Your task to perform on an android device: Search for bose quietcomfort 35 on walmart, select the first entry, and add it to the cart. Image 0: 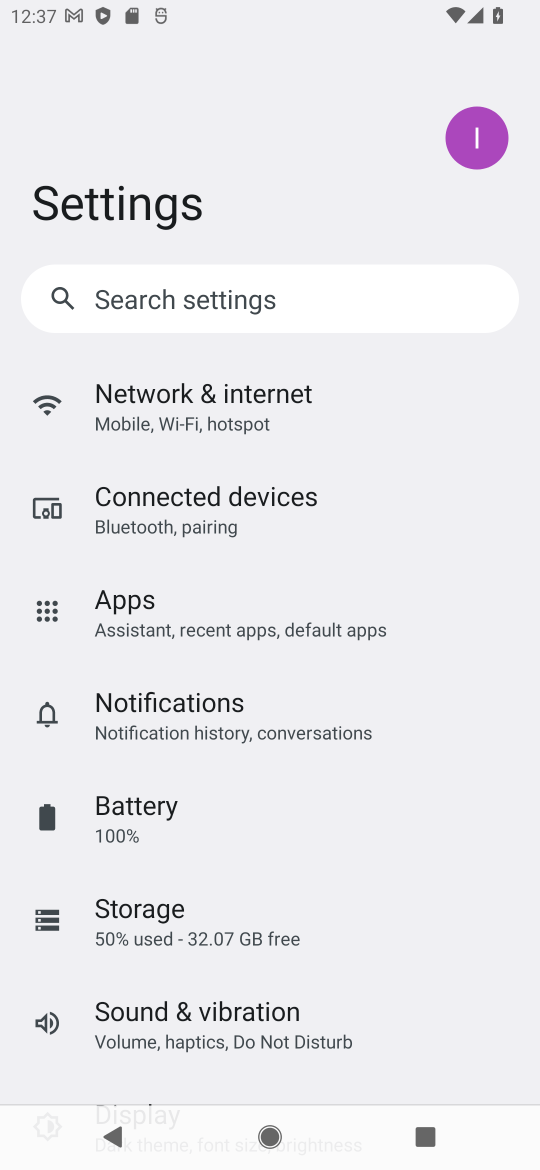
Step 0: press home button
Your task to perform on an android device: Search for bose quietcomfort 35 on walmart, select the first entry, and add it to the cart. Image 1: 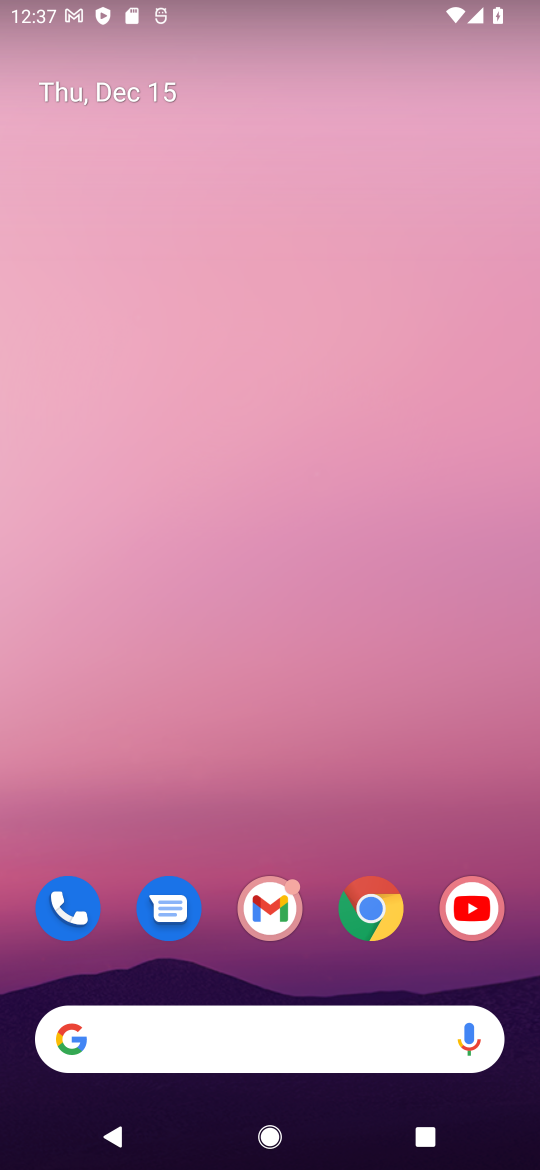
Step 1: click (361, 916)
Your task to perform on an android device: Search for bose quietcomfort 35 on walmart, select the first entry, and add it to the cart. Image 2: 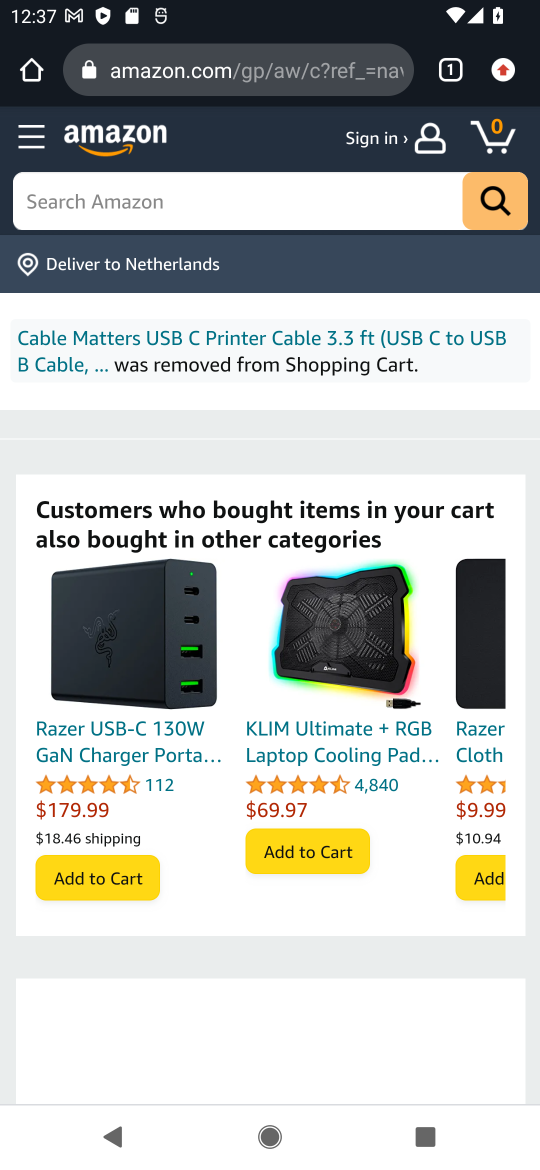
Step 2: click (247, 79)
Your task to perform on an android device: Search for bose quietcomfort 35 on walmart, select the first entry, and add it to the cart. Image 3: 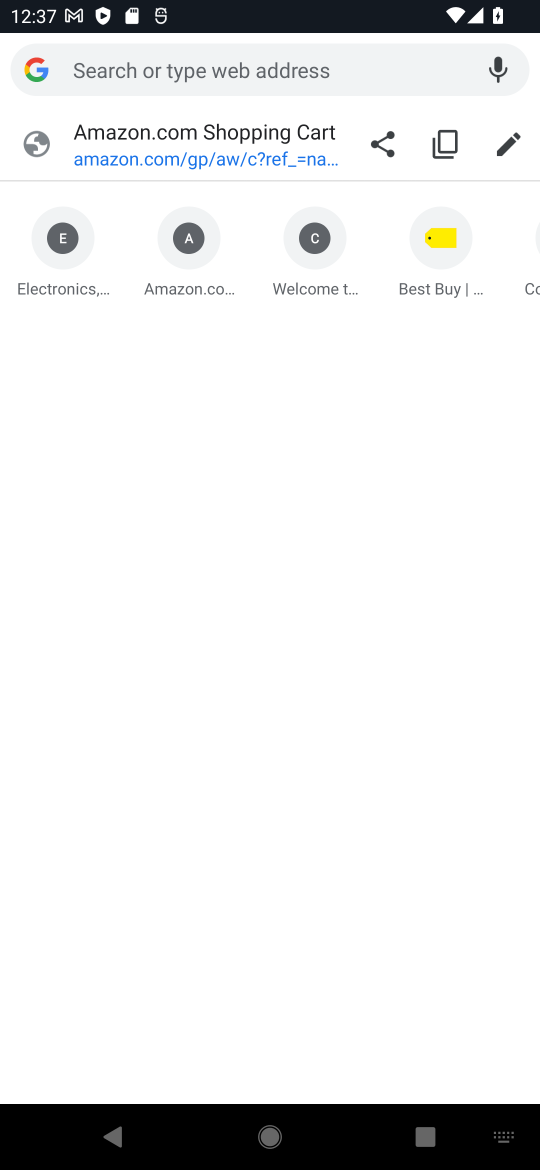
Step 3: type "walmart.com"
Your task to perform on an android device: Search for bose quietcomfort 35 on walmart, select the first entry, and add it to the cart. Image 4: 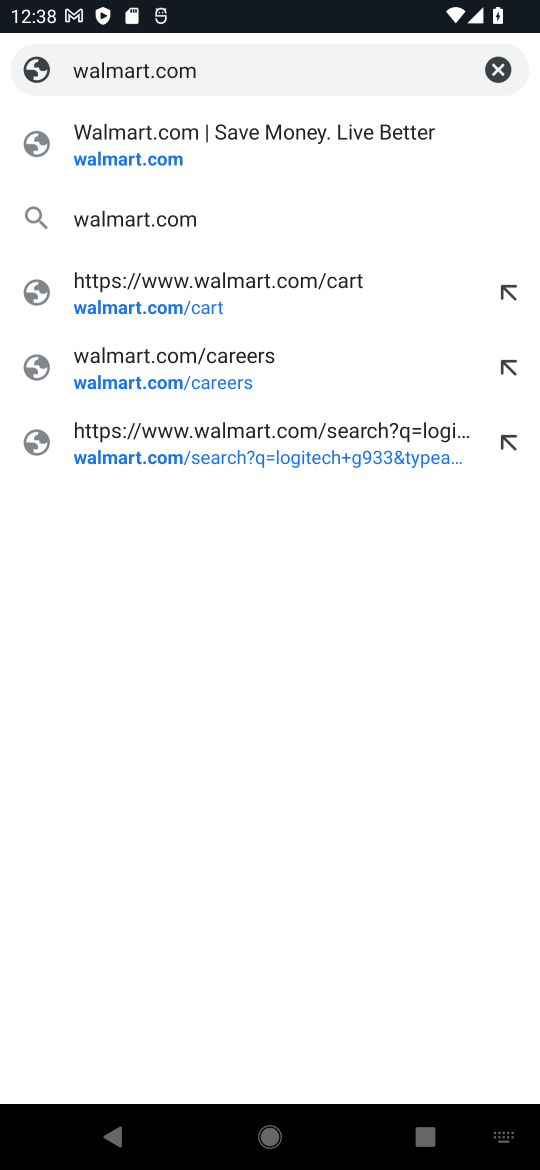
Step 4: click (124, 159)
Your task to perform on an android device: Search for bose quietcomfort 35 on walmart, select the first entry, and add it to the cart. Image 5: 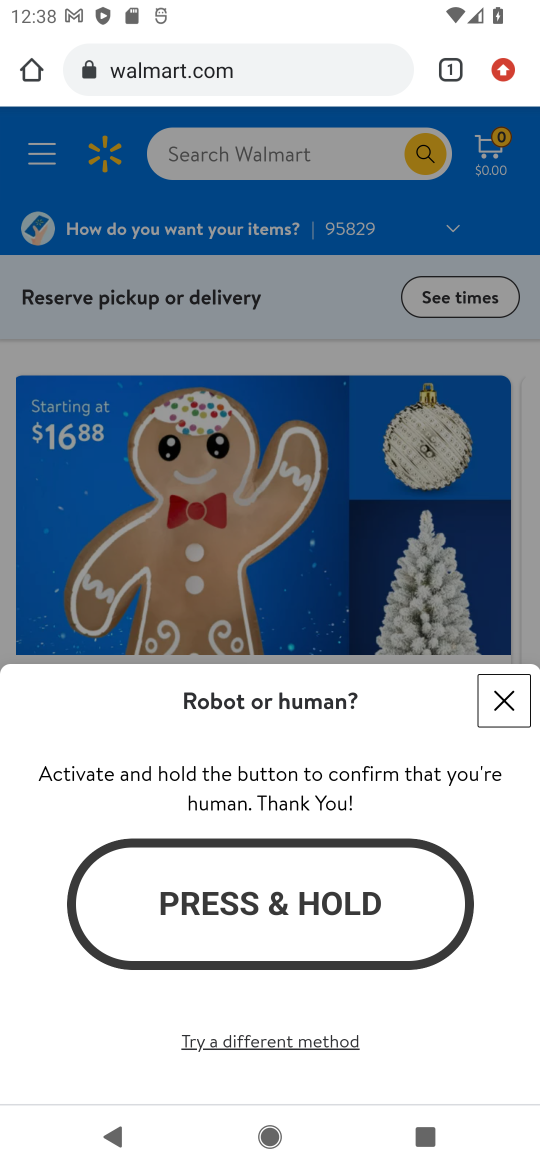
Step 5: click (233, 894)
Your task to perform on an android device: Search for bose quietcomfort 35 on walmart, select the first entry, and add it to the cart. Image 6: 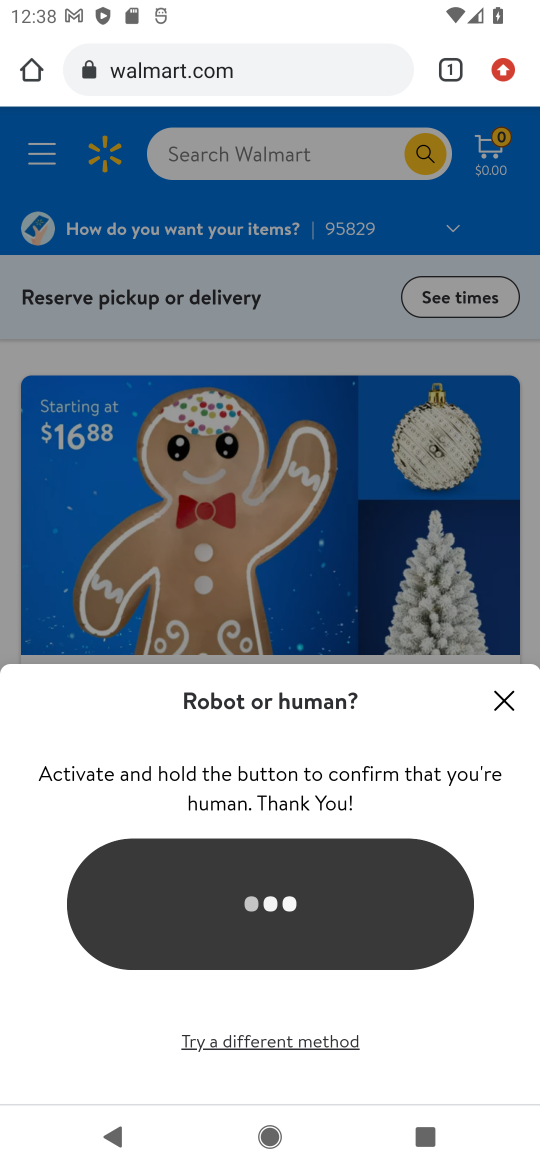
Step 6: click (227, 174)
Your task to perform on an android device: Search for bose quietcomfort 35 on walmart, select the first entry, and add it to the cart. Image 7: 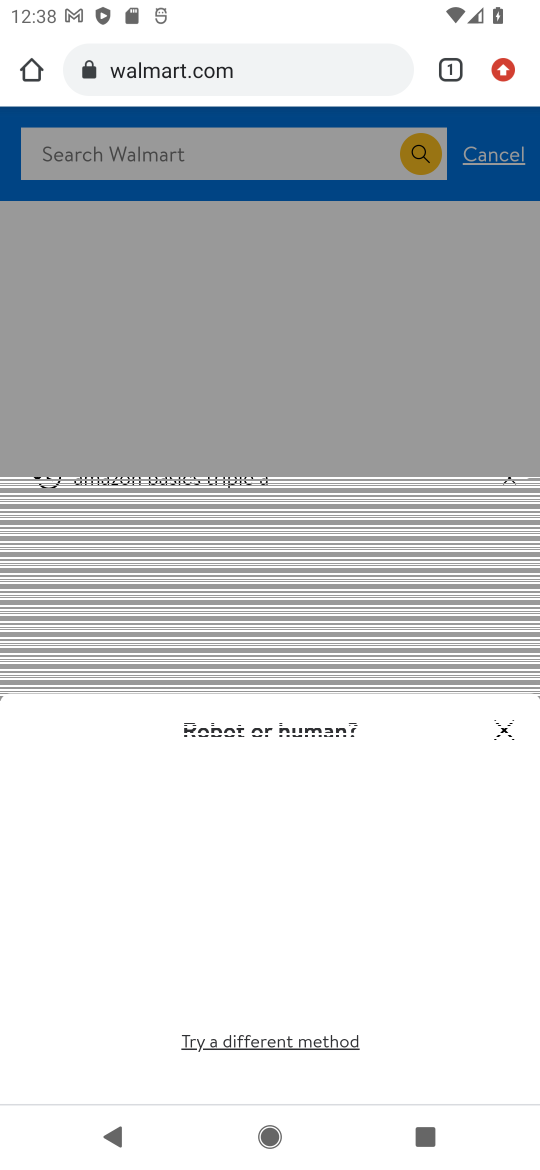
Step 7: click (237, 158)
Your task to perform on an android device: Search for bose quietcomfort 35 on walmart, select the first entry, and add it to the cart. Image 8: 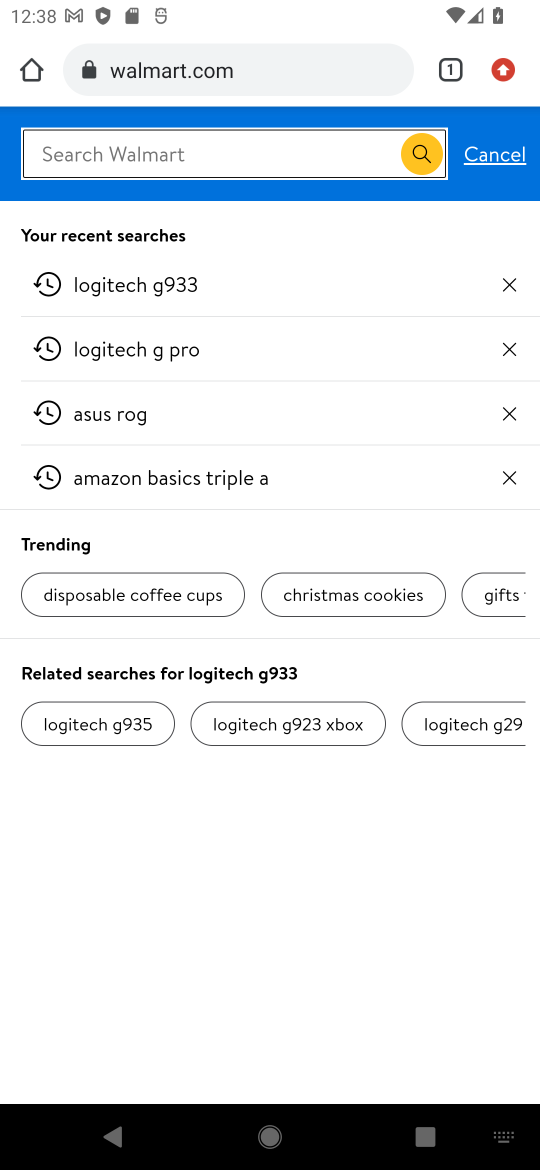
Step 8: type "bose quietcomfort 35"
Your task to perform on an android device: Search for bose quietcomfort 35 on walmart, select the first entry, and add it to the cart. Image 9: 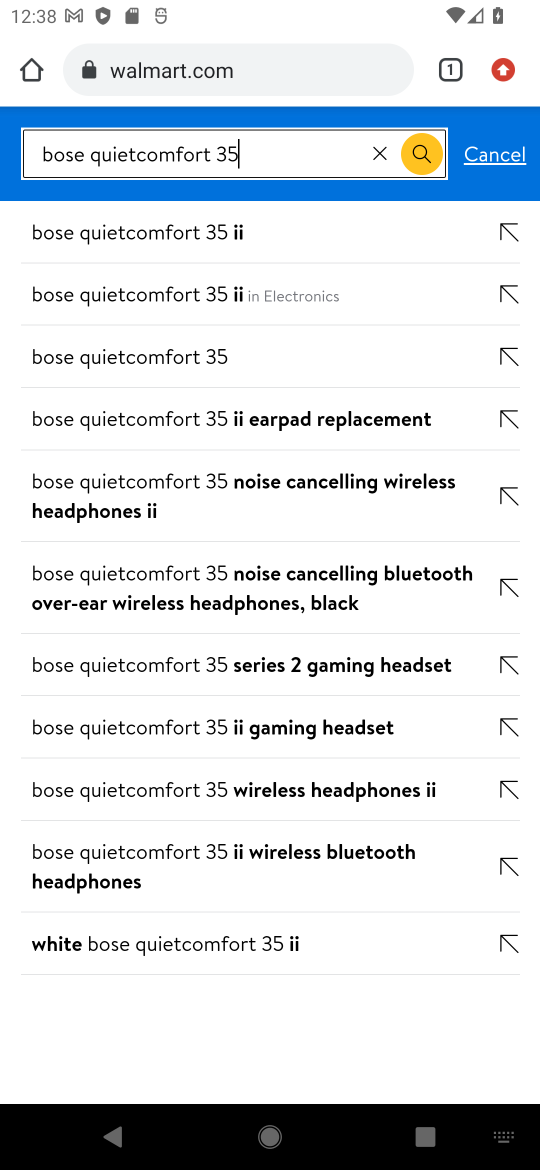
Step 9: click (145, 362)
Your task to perform on an android device: Search for bose quietcomfort 35 on walmart, select the first entry, and add it to the cart. Image 10: 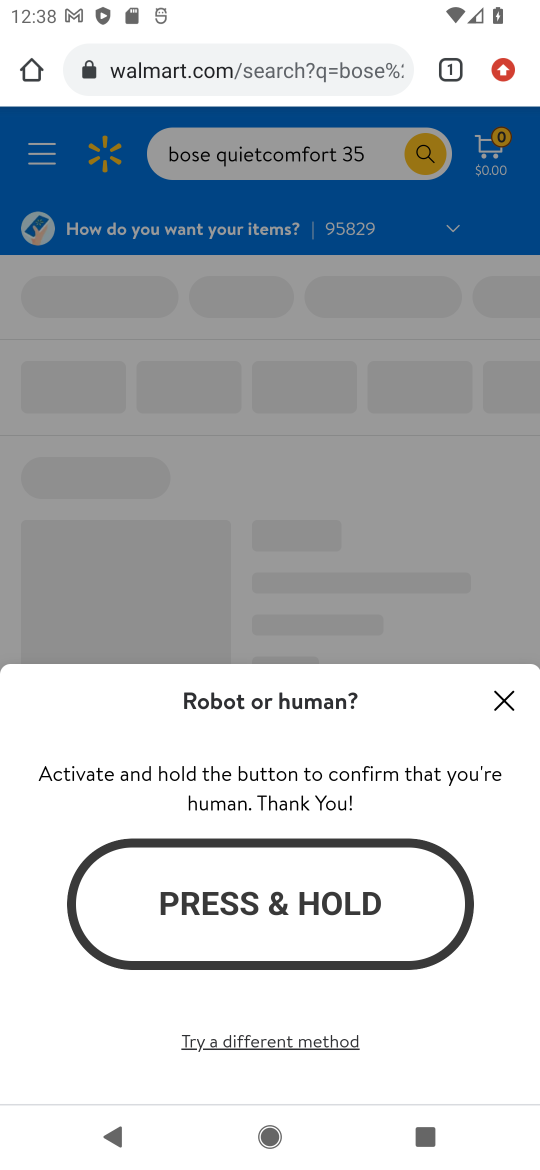
Step 10: click (276, 905)
Your task to perform on an android device: Search for bose quietcomfort 35 on walmart, select the first entry, and add it to the cart. Image 11: 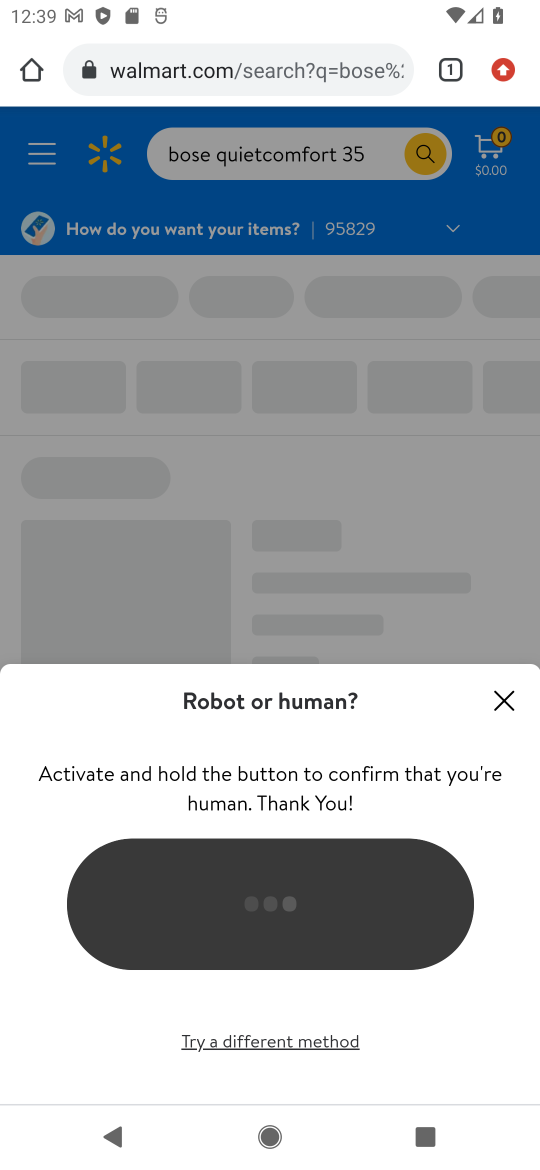
Step 11: click (430, 166)
Your task to perform on an android device: Search for bose quietcomfort 35 on walmart, select the first entry, and add it to the cart. Image 12: 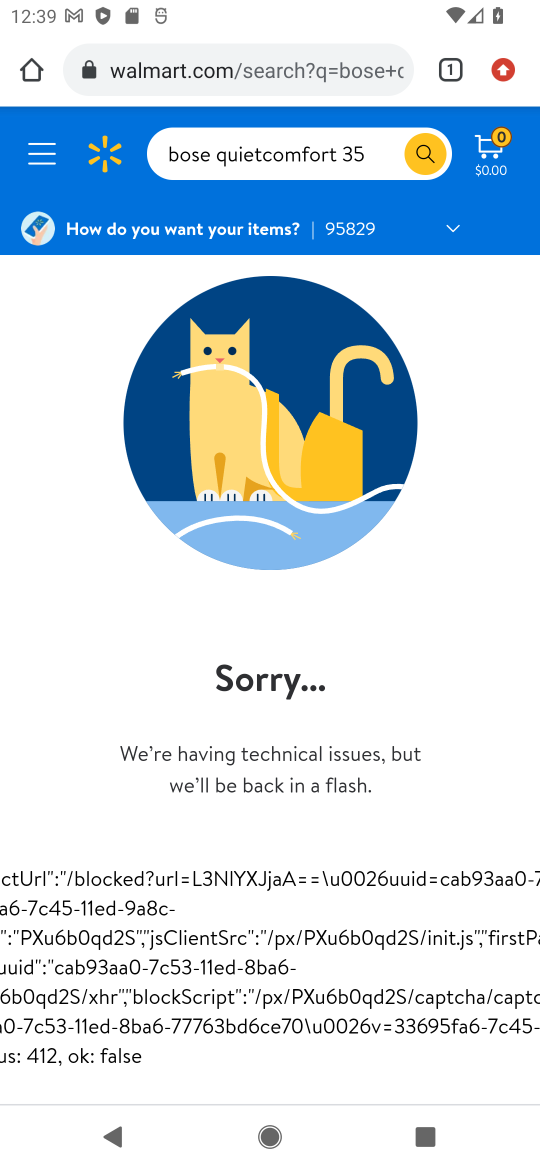
Step 12: task complete